Your task to perform on an android device: install app "Indeed Job Search" Image 0: 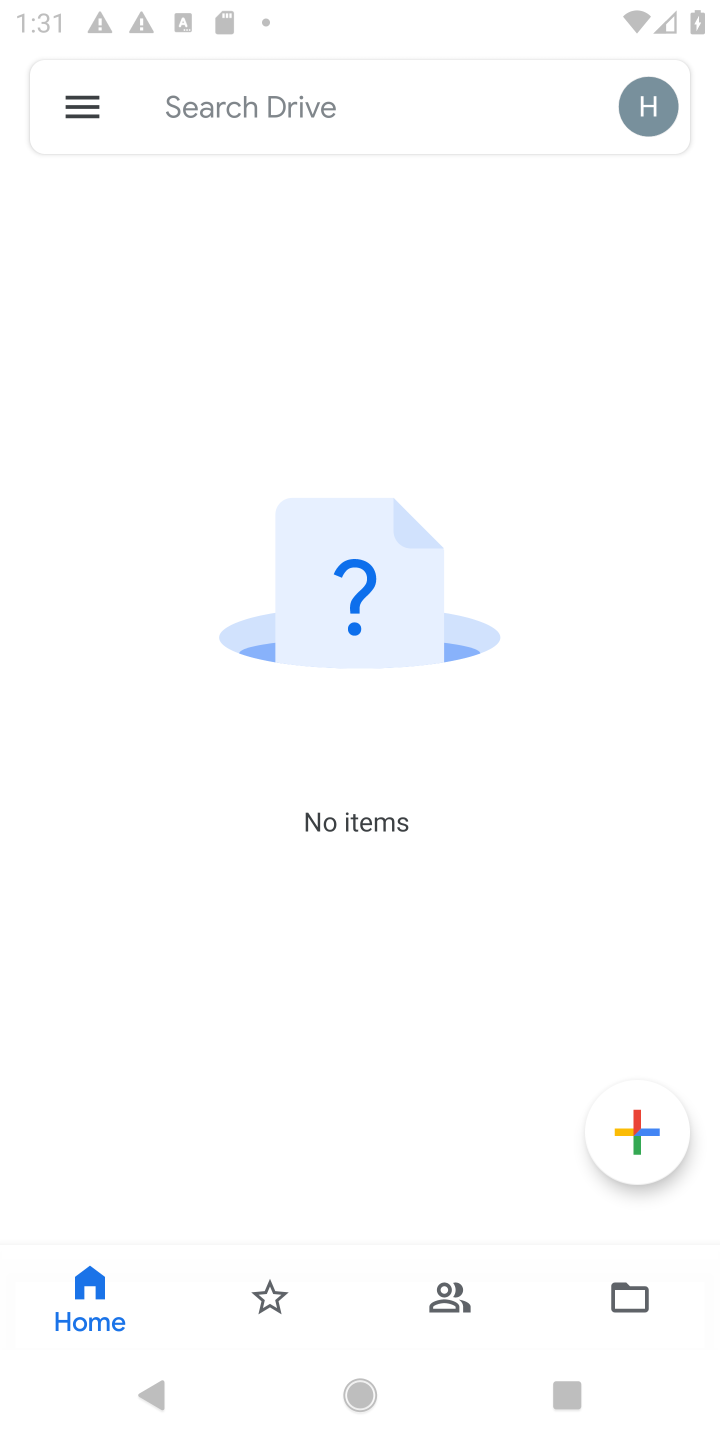
Step 0: click (547, 87)
Your task to perform on an android device: install app "Indeed Job Search" Image 1: 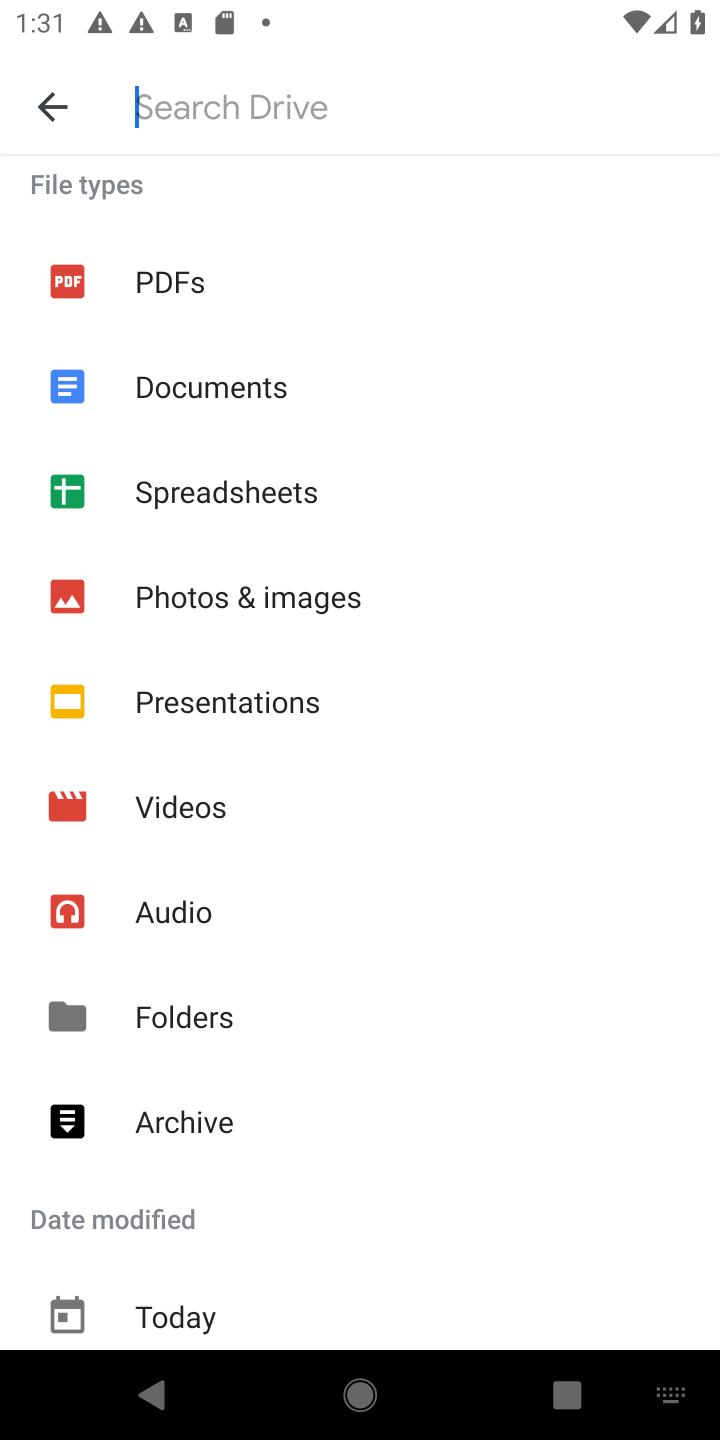
Step 1: press home button
Your task to perform on an android device: install app "Indeed Job Search" Image 2: 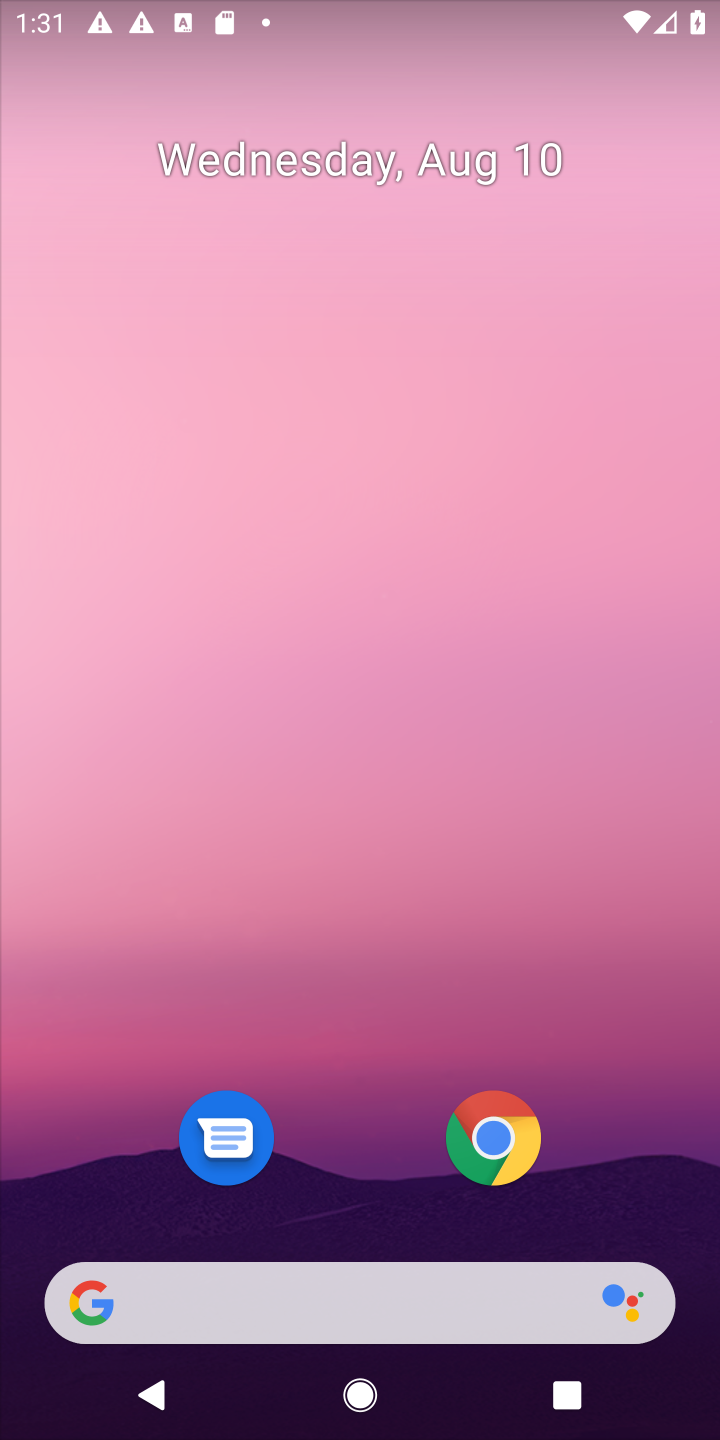
Step 2: drag from (614, 1198) to (622, 78)
Your task to perform on an android device: install app "Indeed Job Search" Image 3: 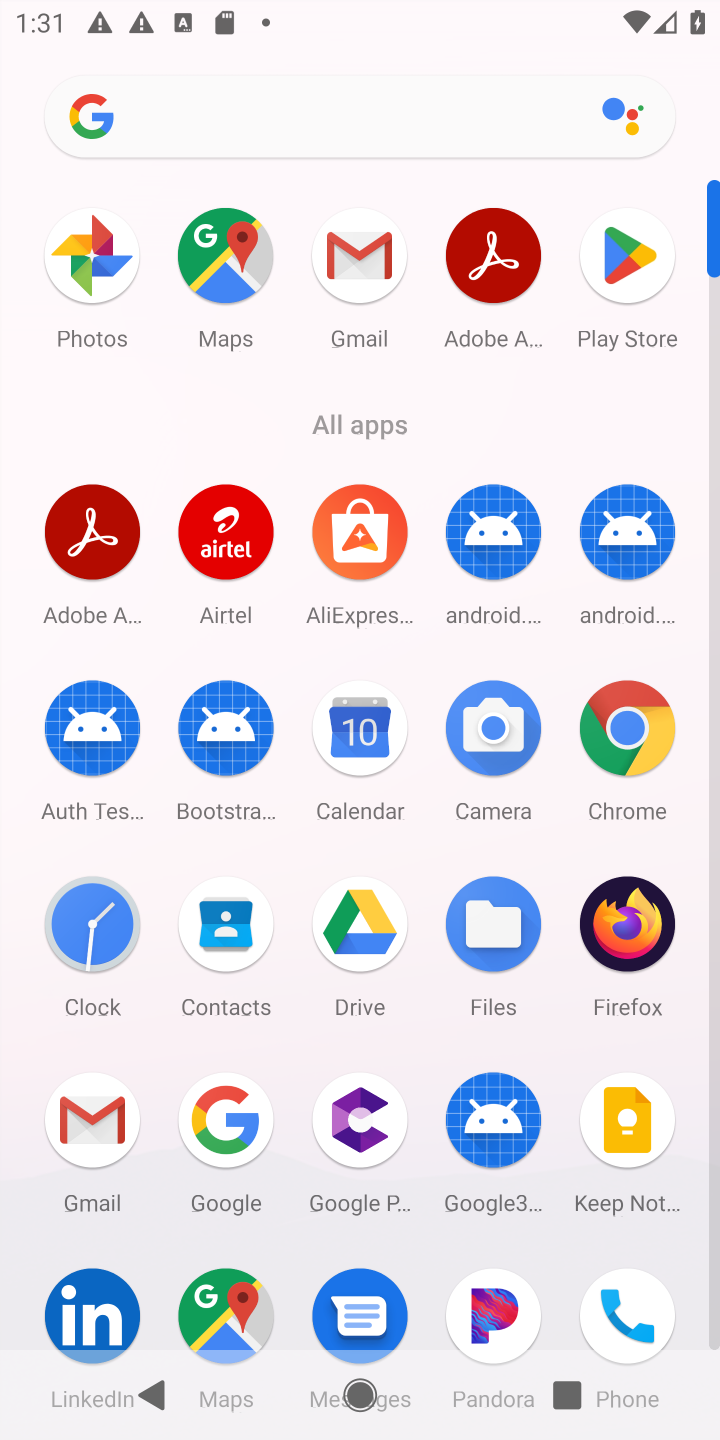
Step 3: click (623, 263)
Your task to perform on an android device: install app "Indeed Job Search" Image 4: 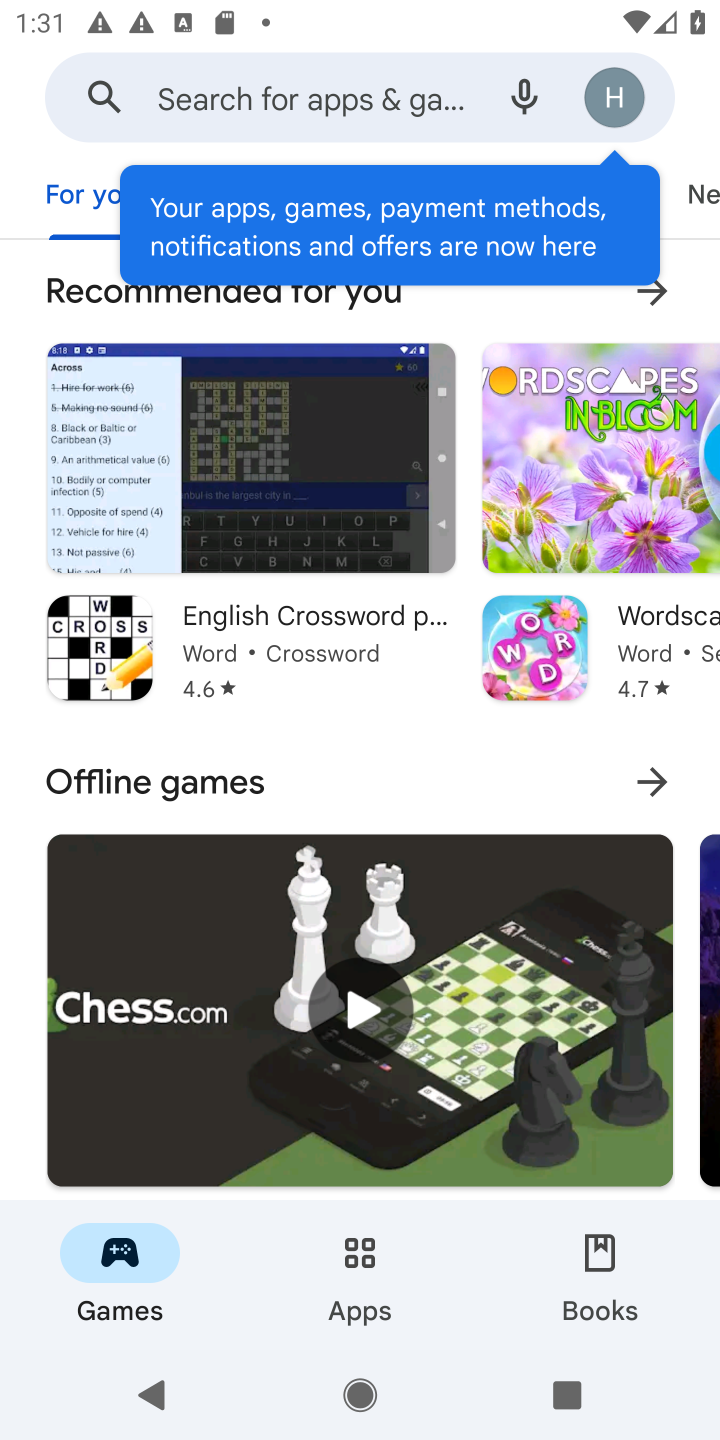
Step 4: click (259, 93)
Your task to perform on an android device: install app "Indeed Job Search" Image 5: 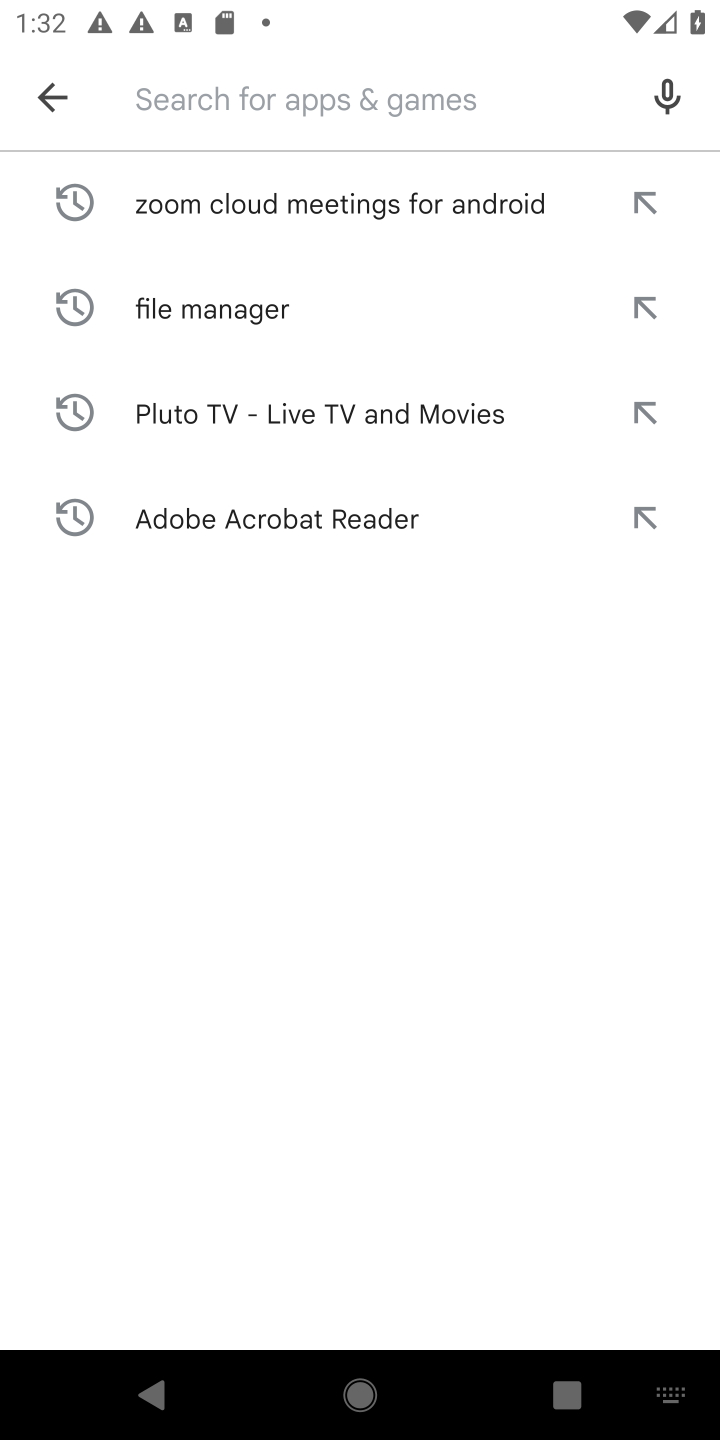
Step 5: type "indeed job search"
Your task to perform on an android device: install app "Indeed Job Search" Image 6: 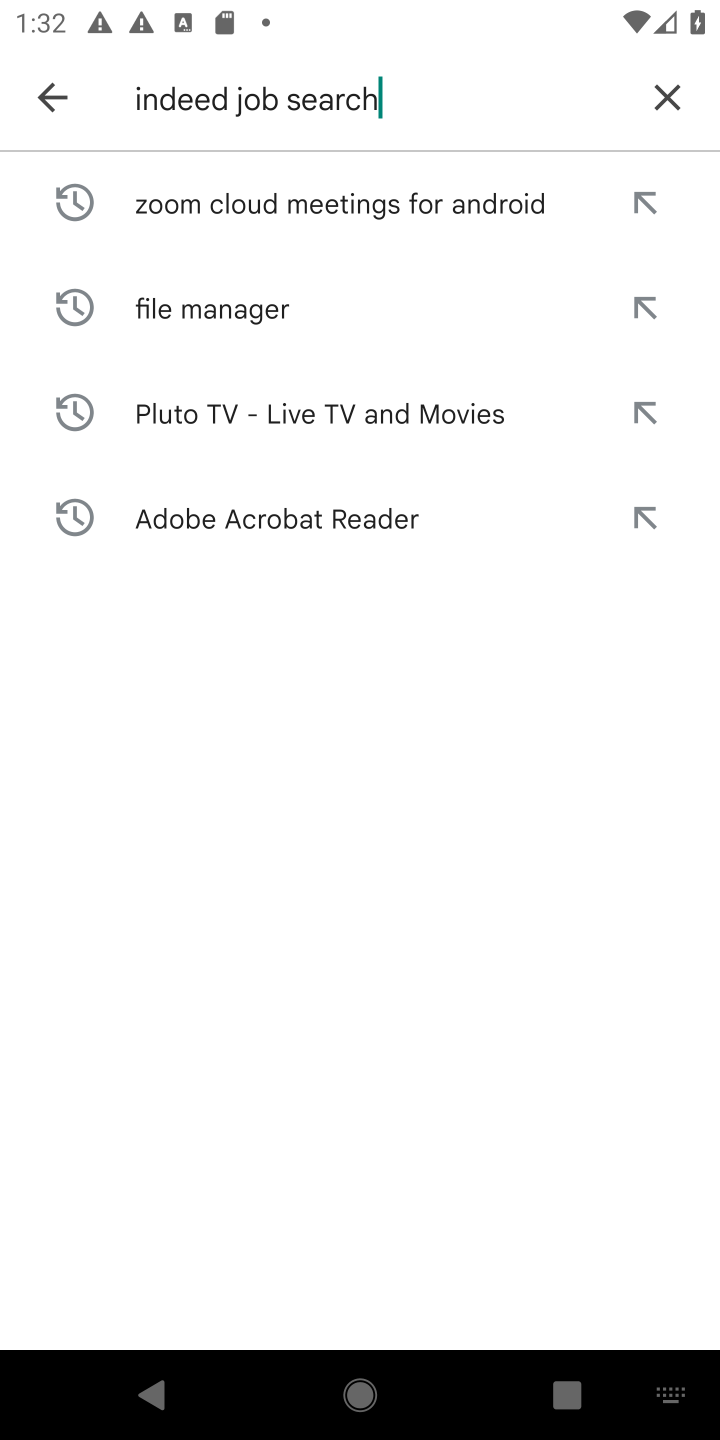
Step 6: press enter
Your task to perform on an android device: install app "Indeed Job Search" Image 7: 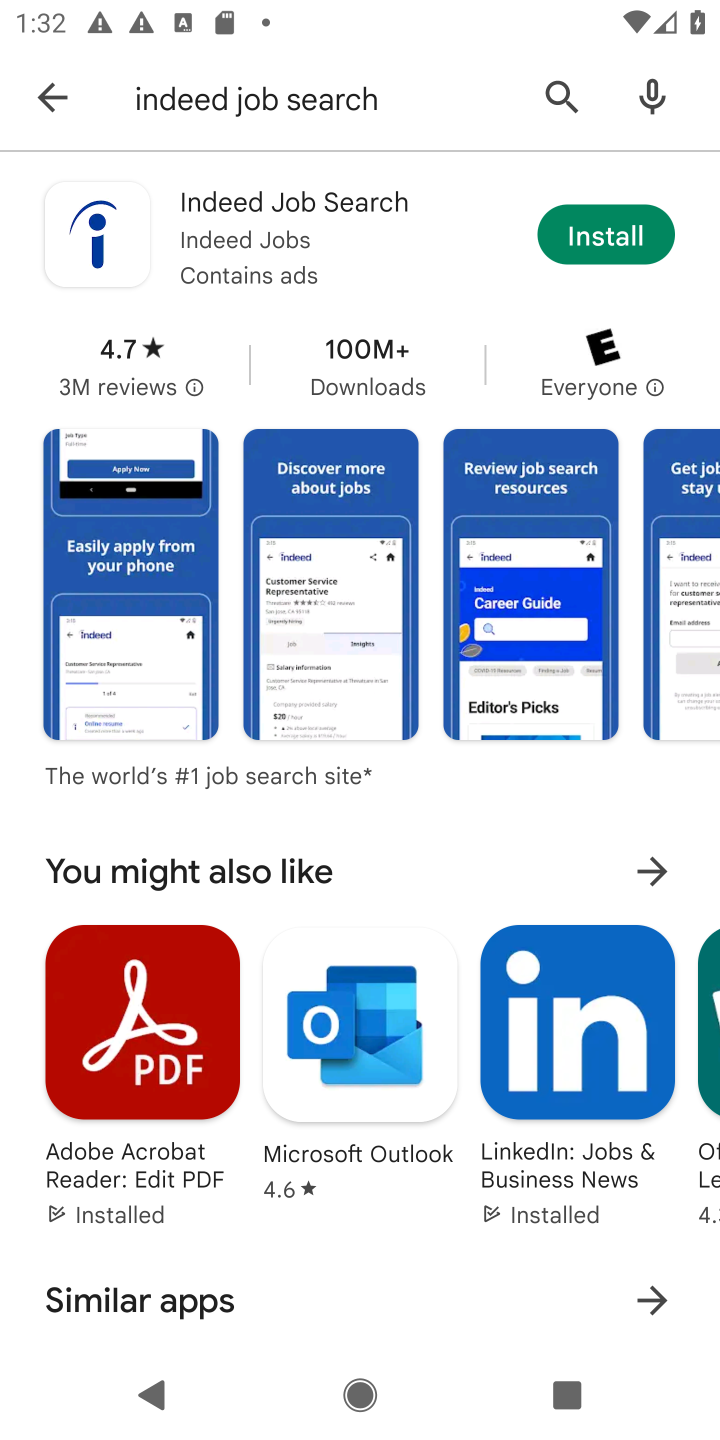
Step 7: click (590, 233)
Your task to perform on an android device: install app "Indeed Job Search" Image 8: 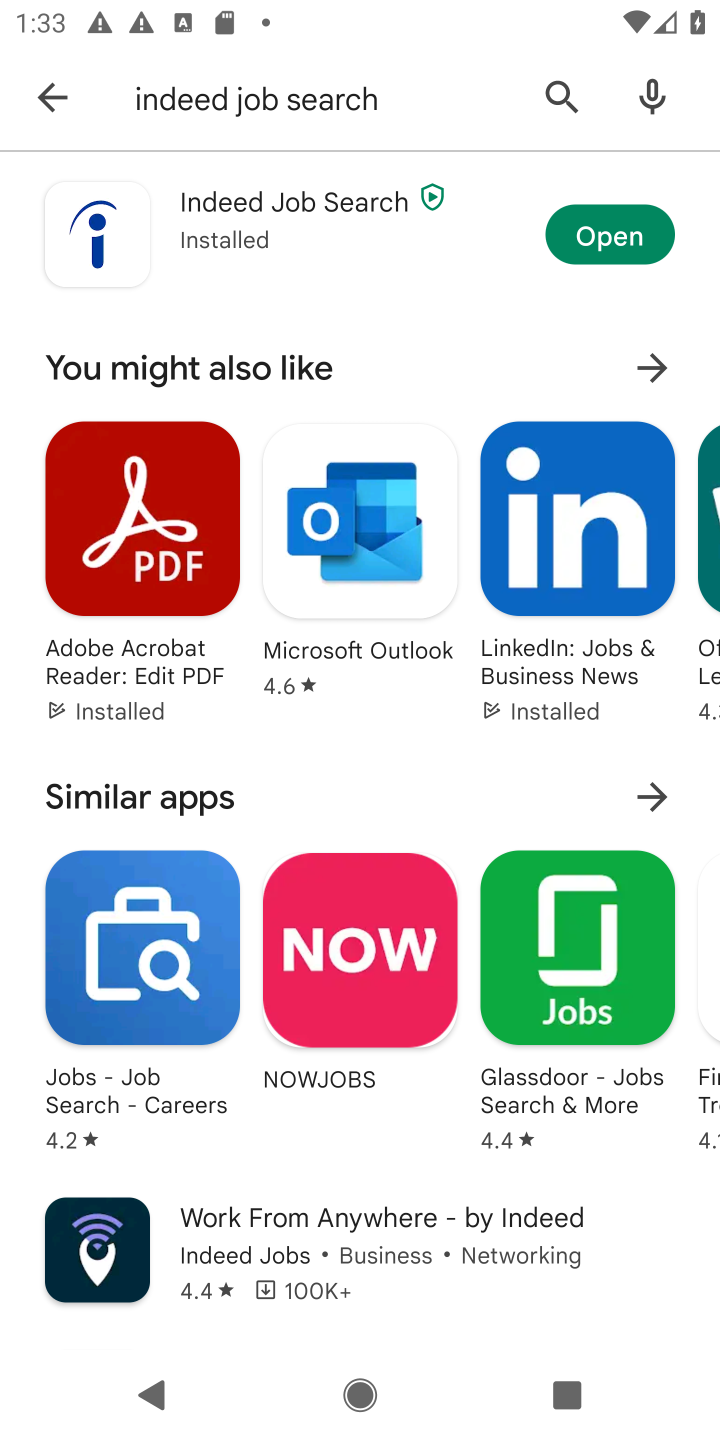
Step 8: task complete